Your task to perform on an android device: turn notification dots on Image 0: 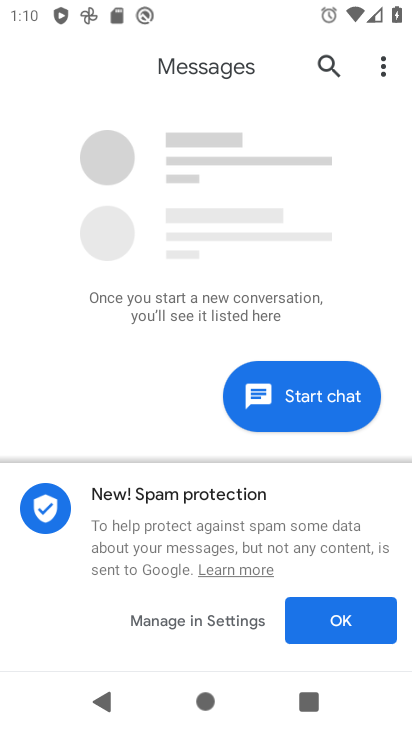
Step 0: press home button
Your task to perform on an android device: turn notification dots on Image 1: 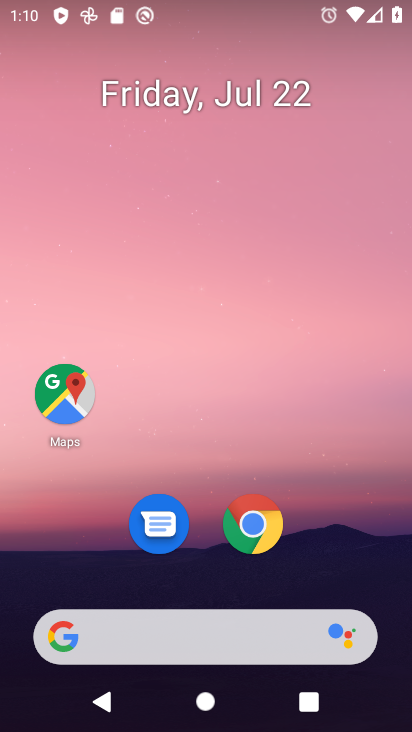
Step 1: drag from (216, 652) to (302, 202)
Your task to perform on an android device: turn notification dots on Image 2: 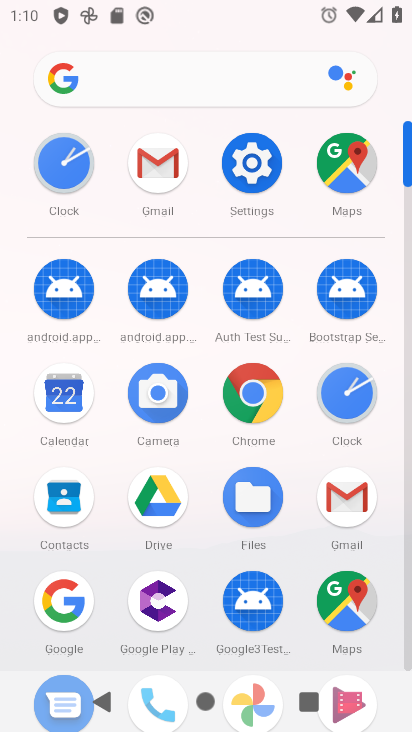
Step 2: click (255, 164)
Your task to perform on an android device: turn notification dots on Image 3: 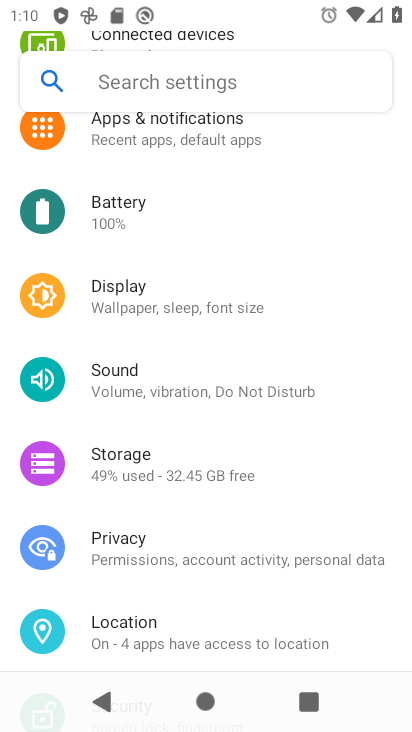
Step 3: click (221, 129)
Your task to perform on an android device: turn notification dots on Image 4: 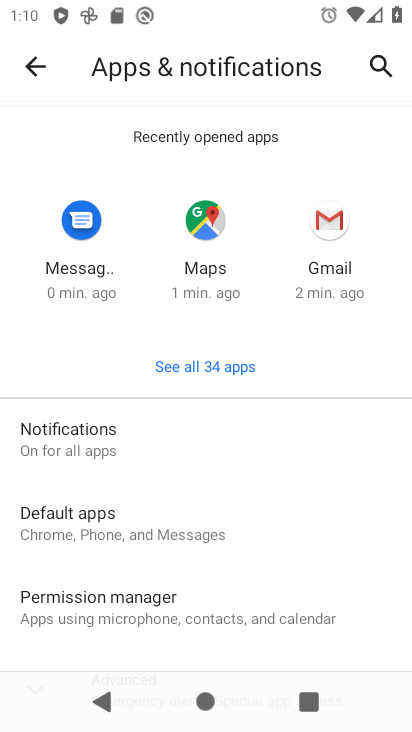
Step 4: click (94, 443)
Your task to perform on an android device: turn notification dots on Image 5: 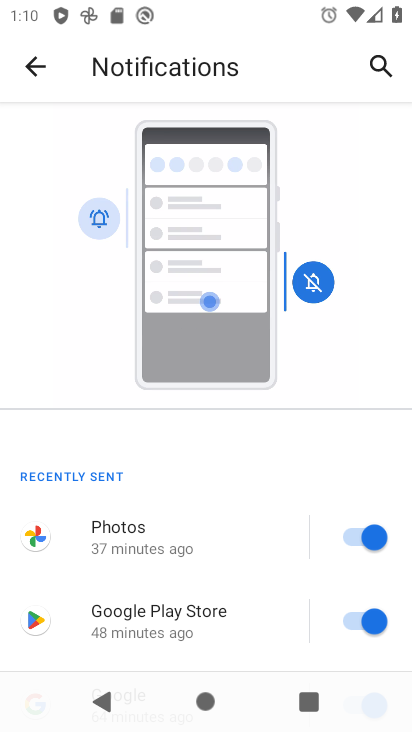
Step 5: drag from (214, 646) to (371, 142)
Your task to perform on an android device: turn notification dots on Image 6: 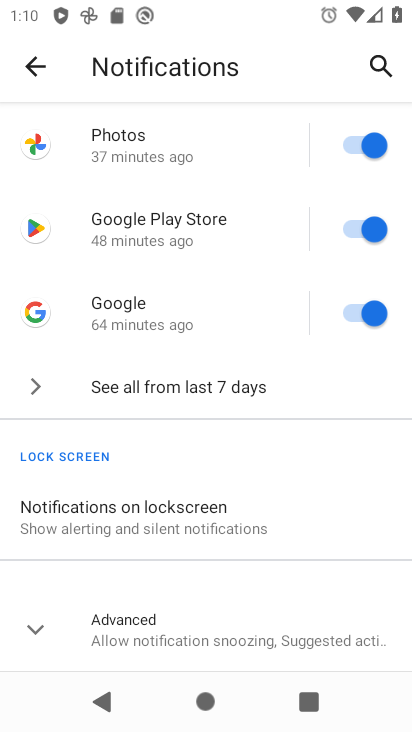
Step 6: click (206, 628)
Your task to perform on an android device: turn notification dots on Image 7: 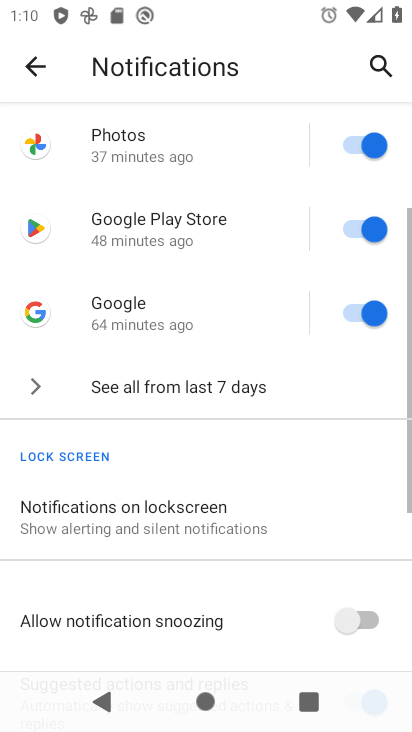
Step 7: drag from (223, 628) to (326, 247)
Your task to perform on an android device: turn notification dots on Image 8: 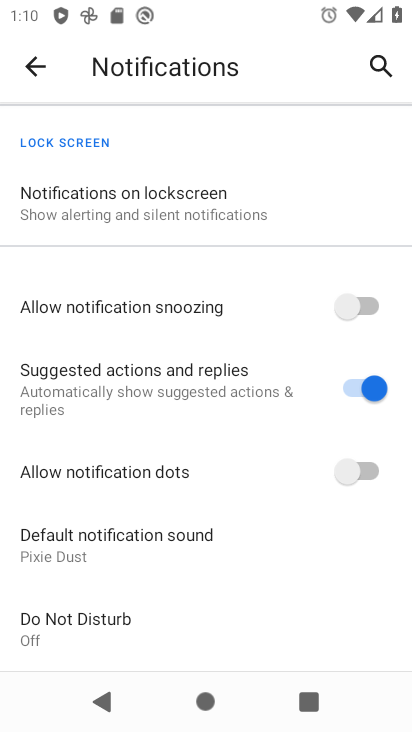
Step 8: click (369, 473)
Your task to perform on an android device: turn notification dots on Image 9: 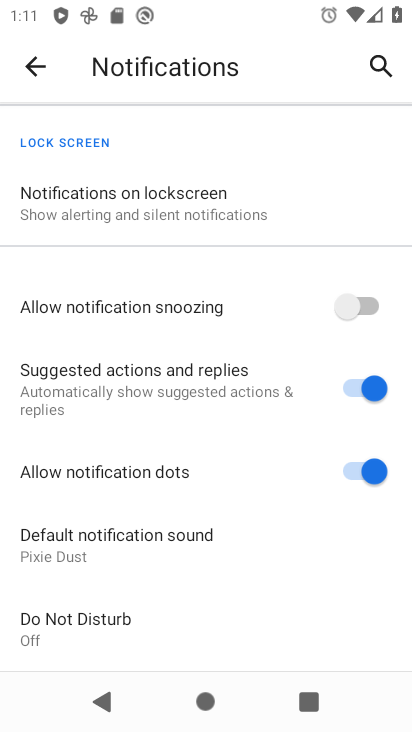
Step 9: task complete